Your task to perform on an android device: When is my next appointment? Image 0: 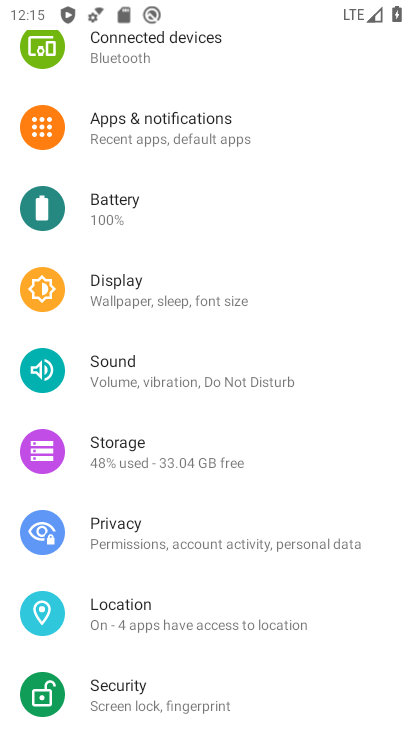
Step 0: press home button
Your task to perform on an android device: When is my next appointment? Image 1: 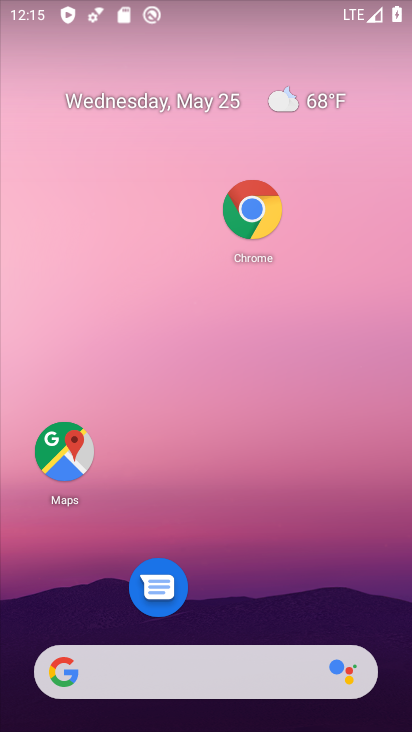
Step 1: drag from (232, 616) to (325, 96)
Your task to perform on an android device: When is my next appointment? Image 2: 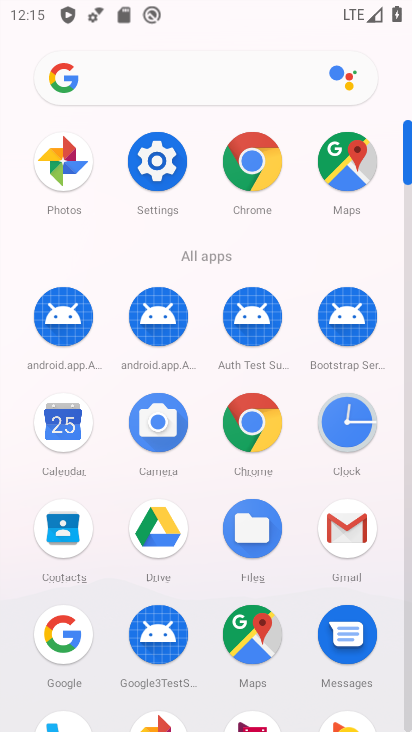
Step 2: click (64, 421)
Your task to perform on an android device: When is my next appointment? Image 3: 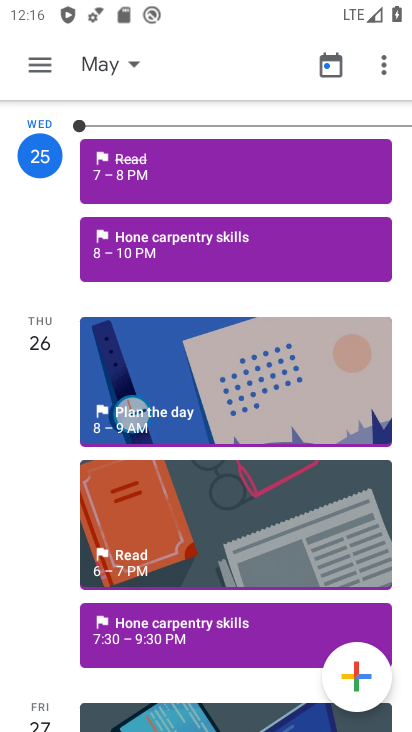
Step 3: task complete